Your task to perform on an android device: turn off location history Image 0: 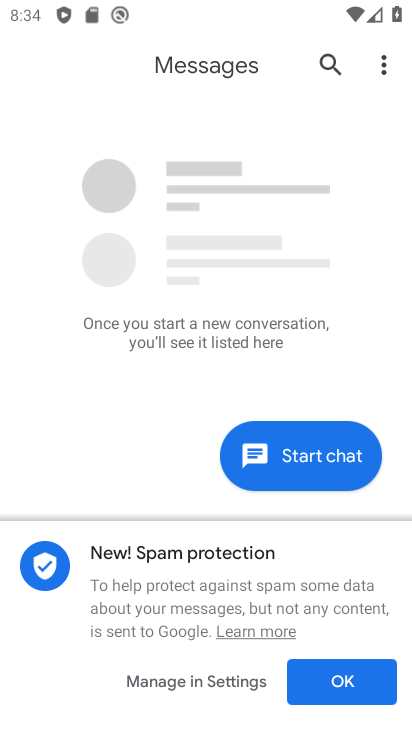
Step 0: press home button
Your task to perform on an android device: turn off location history Image 1: 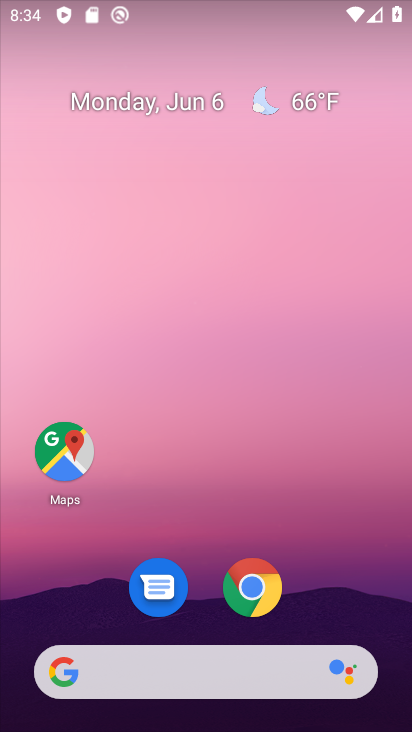
Step 1: drag from (220, 536) to (229, 0)
Your task to perform on an android device: turn off location history Image 2: 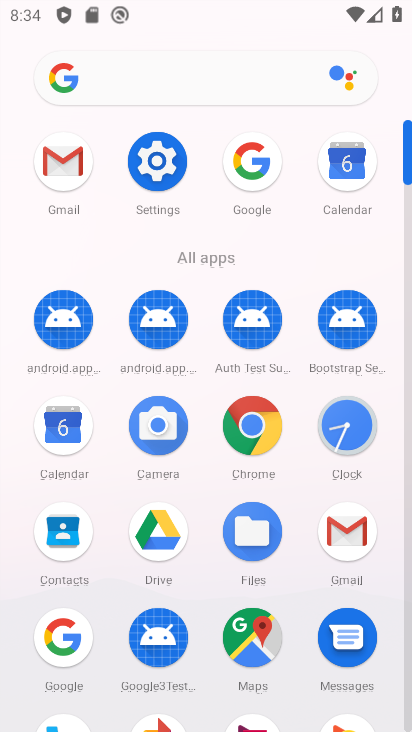
Step 2: click (163, 179)
Your task to perform on an android device: turn off location history Image 3: 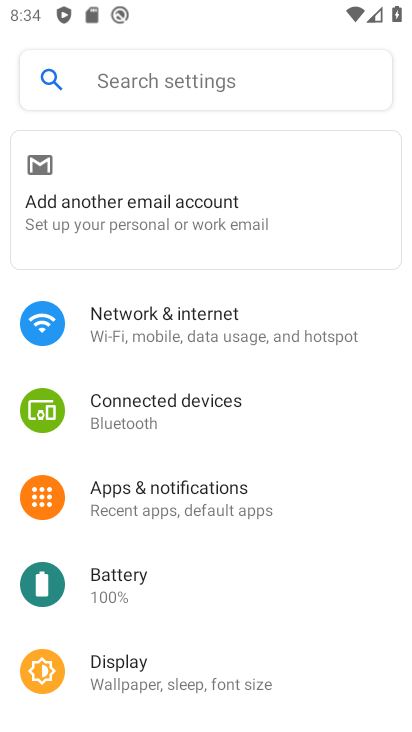
Step 3: drag from (191, 575) to (204, 38)
Your task to perform on an android device: turn off location history Image 4: 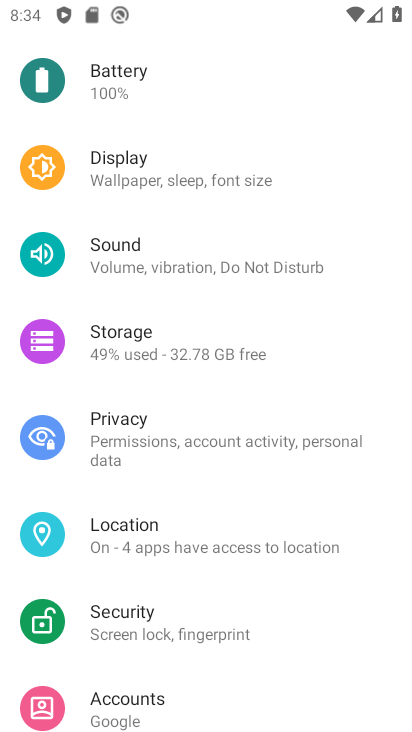
Step 4: click (136, 528)
Your task to perform on an android device: turn off location history Image 5: 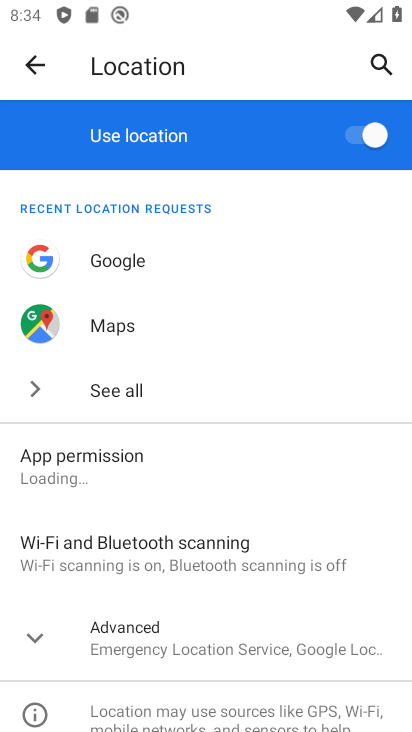
Step 5: click (172, 636)
Your task to perform on an android device: turn off location history Image 6: 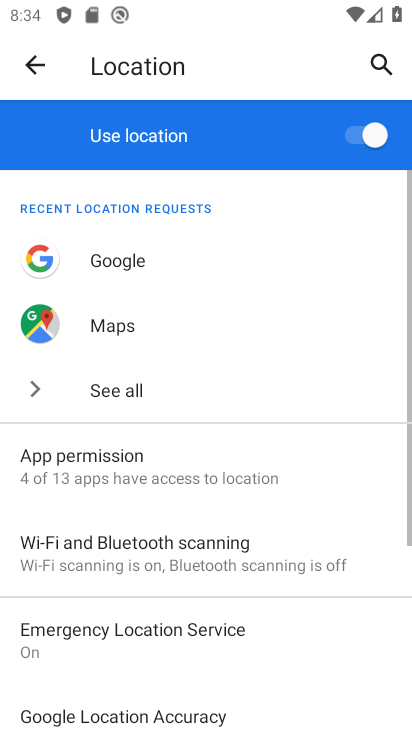
Step 6: drag from (172, 636) to (217, 164)
Your task to perform on an android device: turn off location history Image 7: 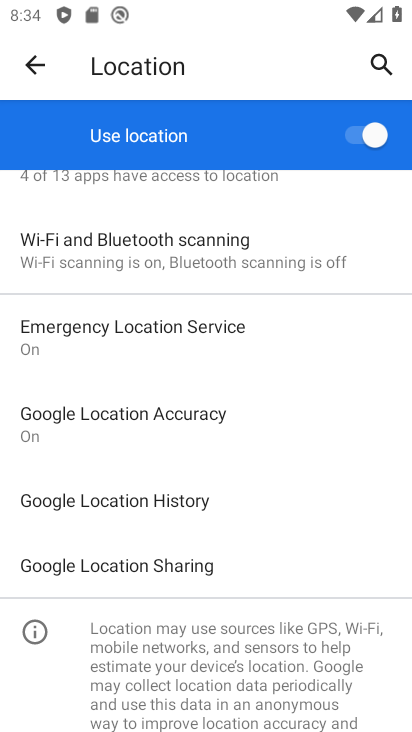
Step 7: click (209, 508)
Your task to perform on an android device: turn off location history Image 8: 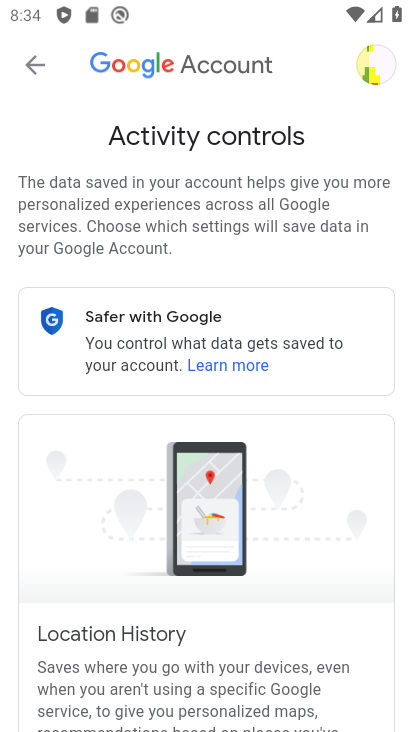
Step 8: drag from (361, 572) to (140, 53)
Your task to perform on an android device: turn off location history Image 9: 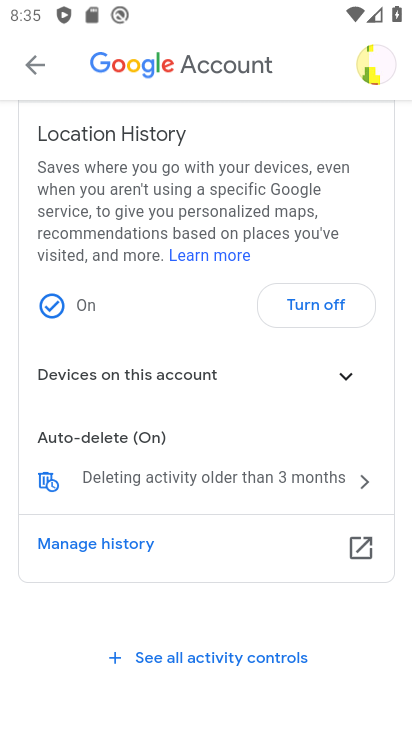
Step 9: click (307, 314)
Your task to perform on an android device: turn off location history Image 10: 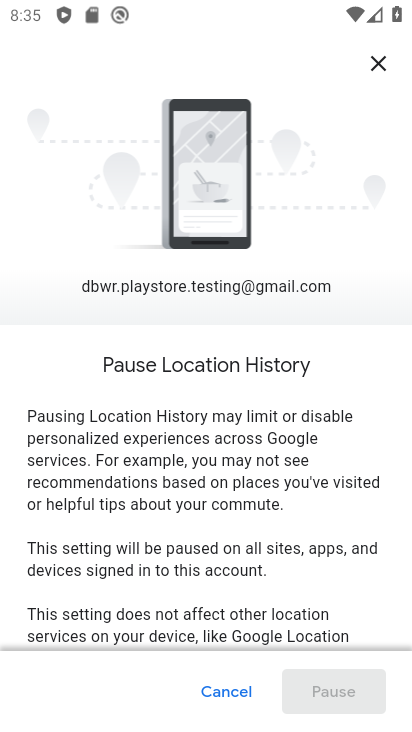
Step 10: drag from (296, 614) to (198, 34)
Your task to perform on an android device: turn off location history Image 11: 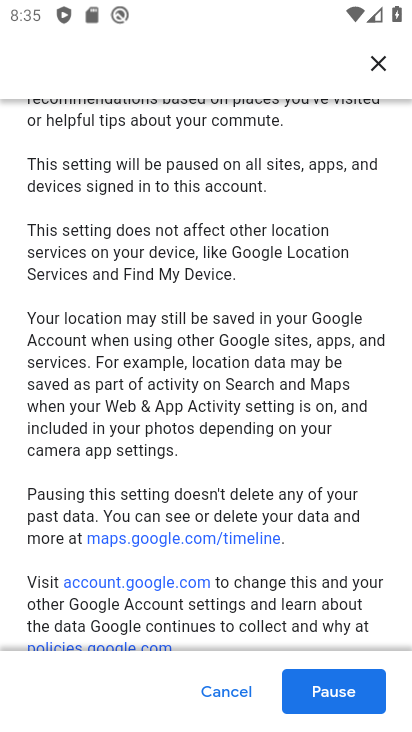
Step 11: click (311, 699)
Your task to perform on an android device: turn off location history Image 12: 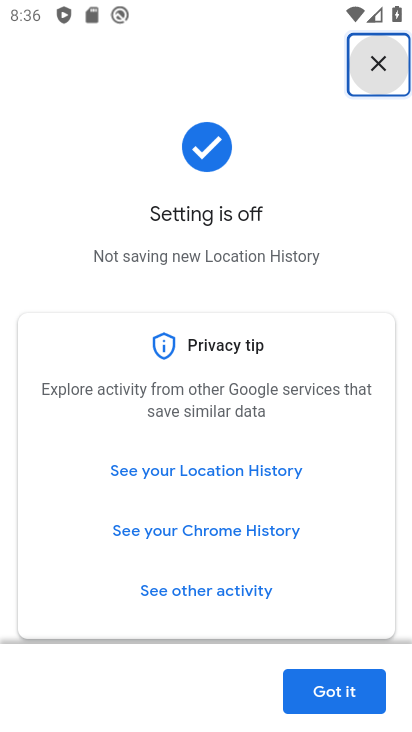
Step 12: click (338, 684)
Your task to perform on an android device: turn off location history Image 13: 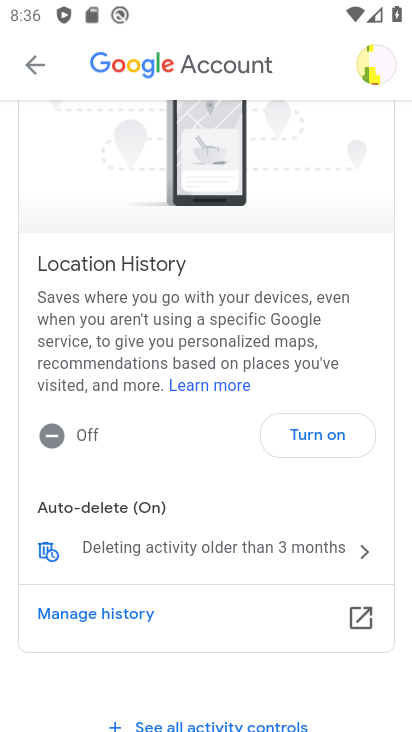
Step 13: task complete